Your task to perform on an android device: Show the shopping cart on walmart. Search for asus zenbook on walmart, select the first entry, add it to the cart, then select checkout. Image 0: 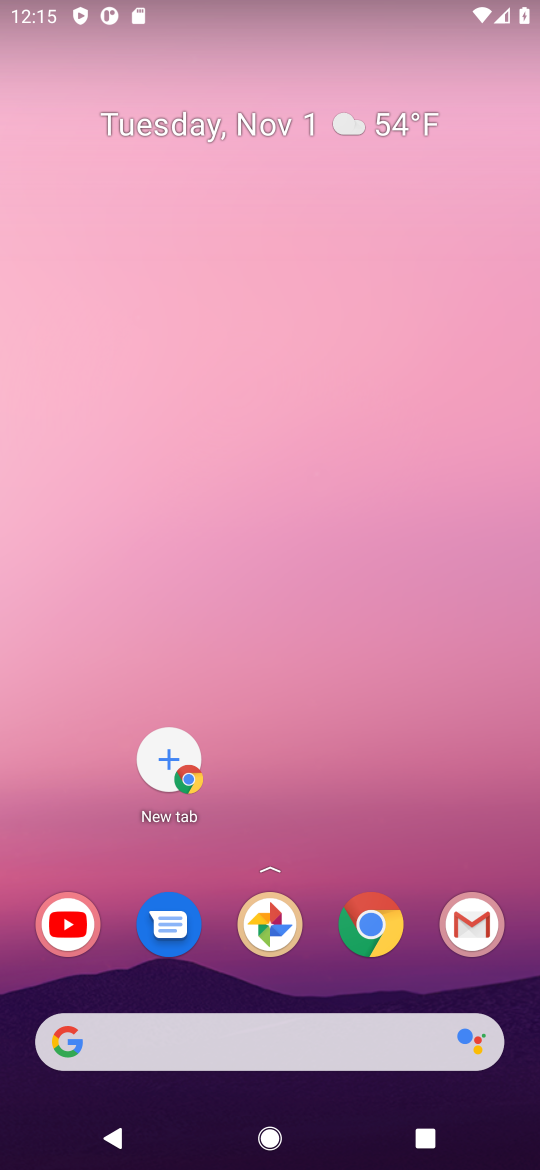
Step 0: click (364, 931)
Your task to perform on an android device: Show the shopping cart on walmart. Search for asus zenbook on walmart, select the first entry, add it to the cart, then select checkout. Image 1: 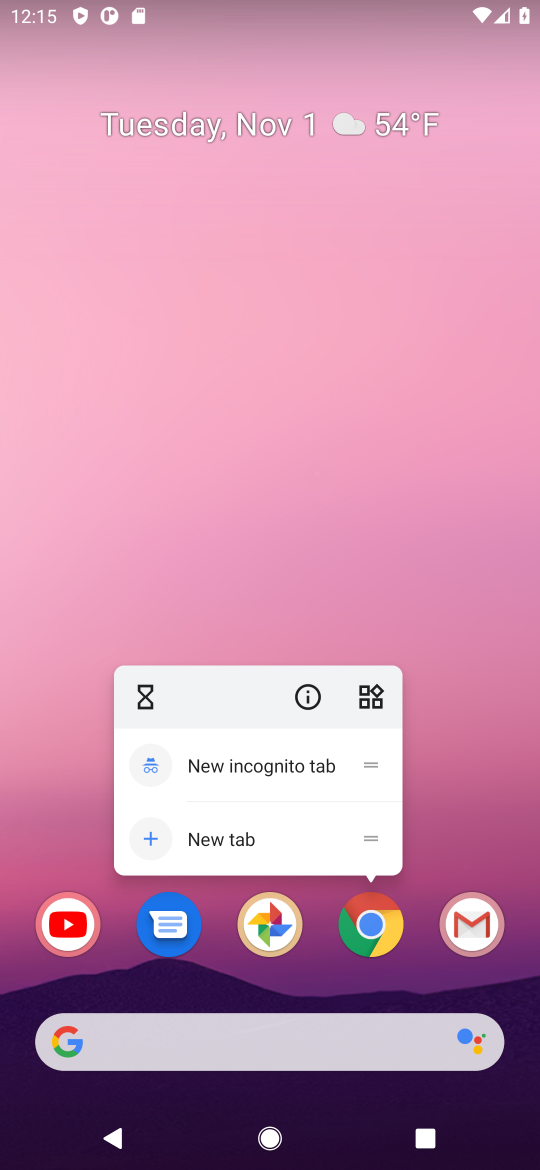
Step 1: click (383, 943)
Your task to perform on an android device: Show the shopping cart on walmart. Search for asus zenbook on walmart, select the first entry, add it to the cart, then select checkout. Image 2: 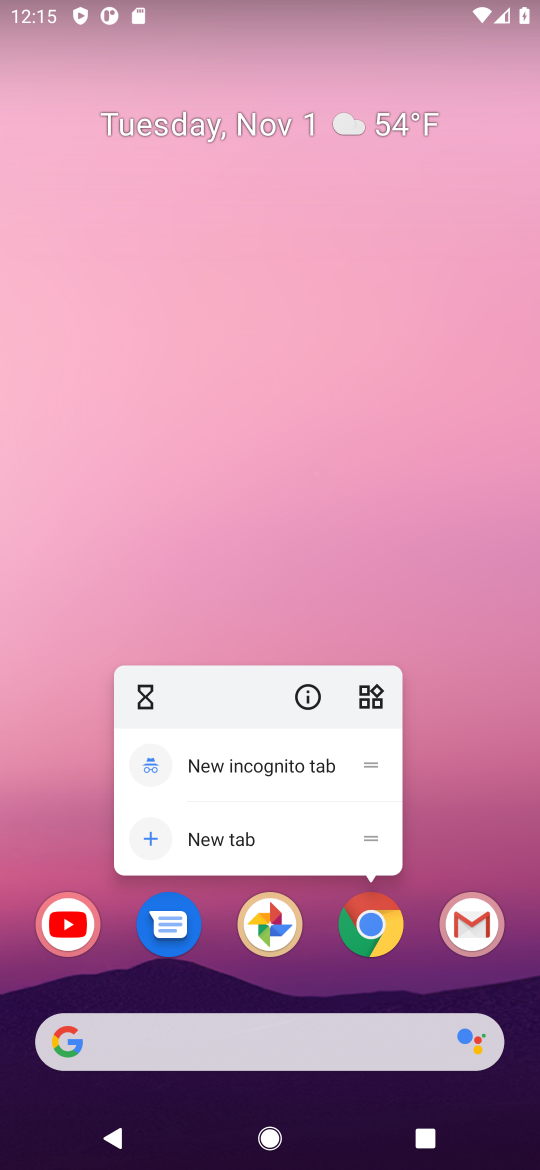
Step 2: click (366, 932)
Your task to perform on an android device: Show the shopping cart on walmart. Search for asus zenbook on walmart, select the first entry, add it to the cart, then select checkout. Image 3: 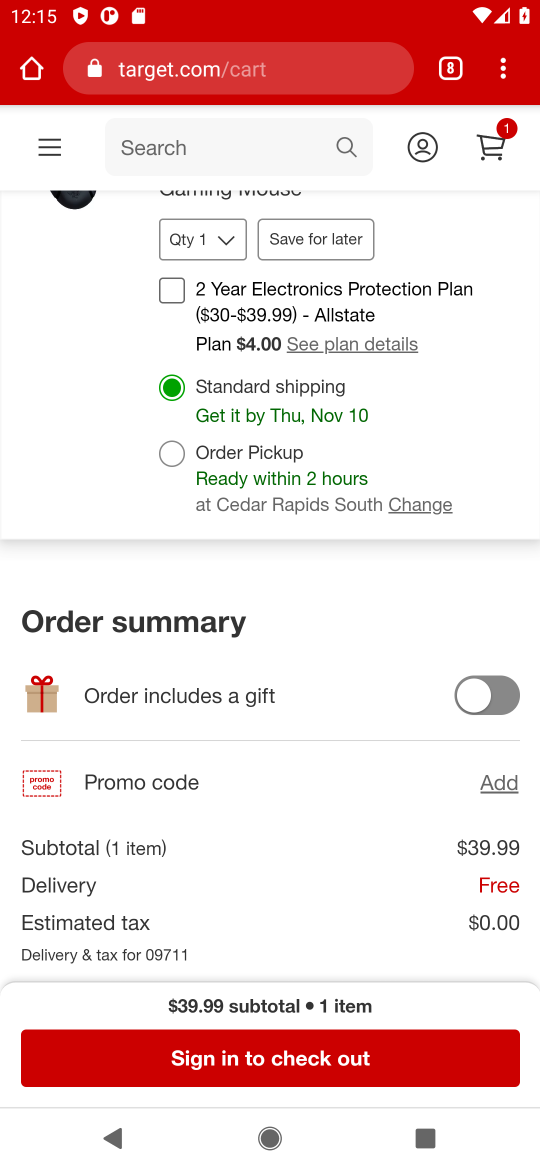
Step 3: click (210, 77)
Your task to perform on an android device: Show the shopping cart on walmart. Search for asus zenbook on walmart, select the first entry, add it to the cart, then select checkout. Image 4: 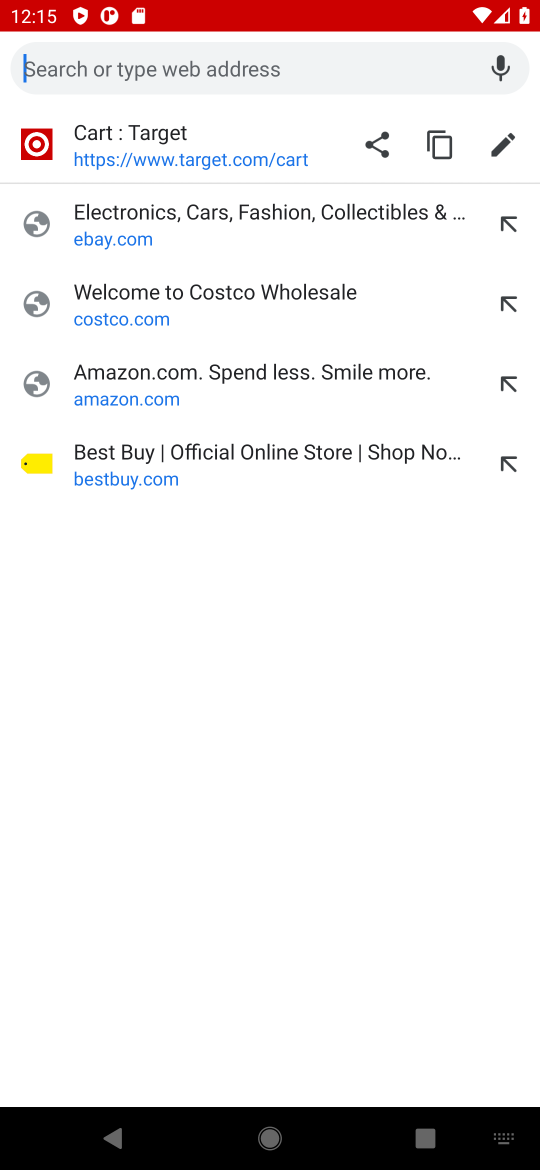
Step 4: type "walmart"
Your task to perform on an android device: Show the shopping cart on walmart. Search for asus zenbook on walmart, select the first entry, add it to the cart, then select checkout. Image 5: 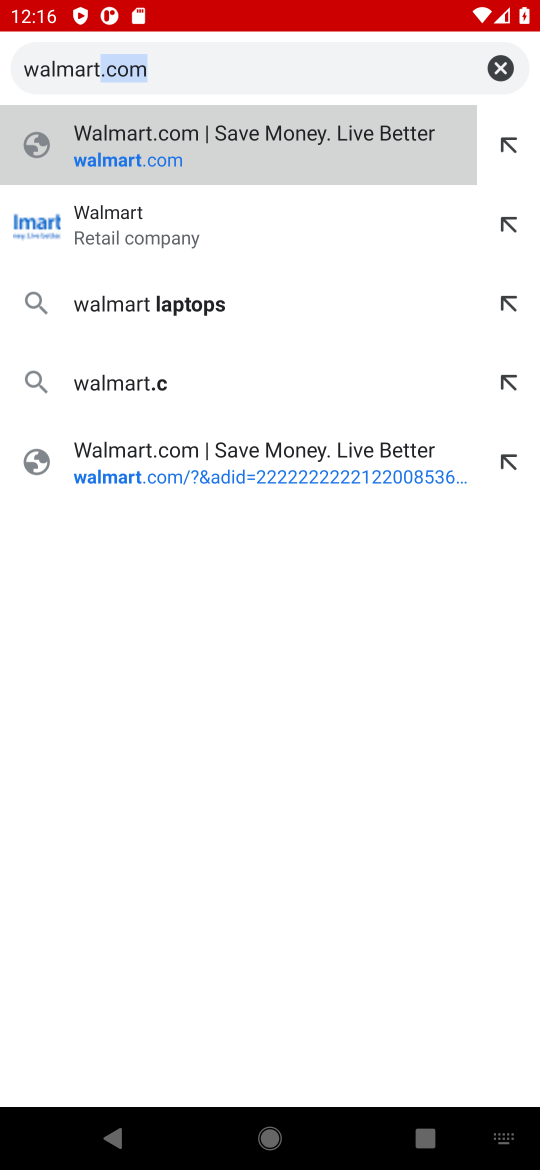
Step 5: click (124, 237)
Your task to perform on an android device: Show the shopping cart on walmart. Search for asus zenbook on walmart, select the first entry, add it to the cart, then select checkout. Image 6: 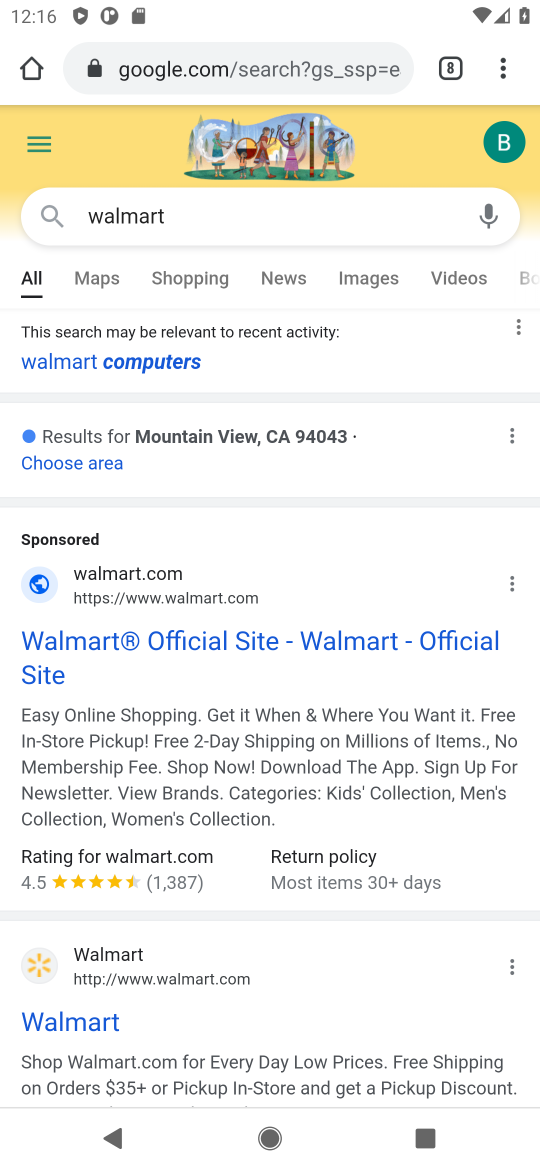
Step 6: click (81, 1022)
Your task to perform on an android device: Show the shopping cart on walmart. Search for asus zenbook on walmart, select the first entry, add it to the cart, then select checkout. Image 7: 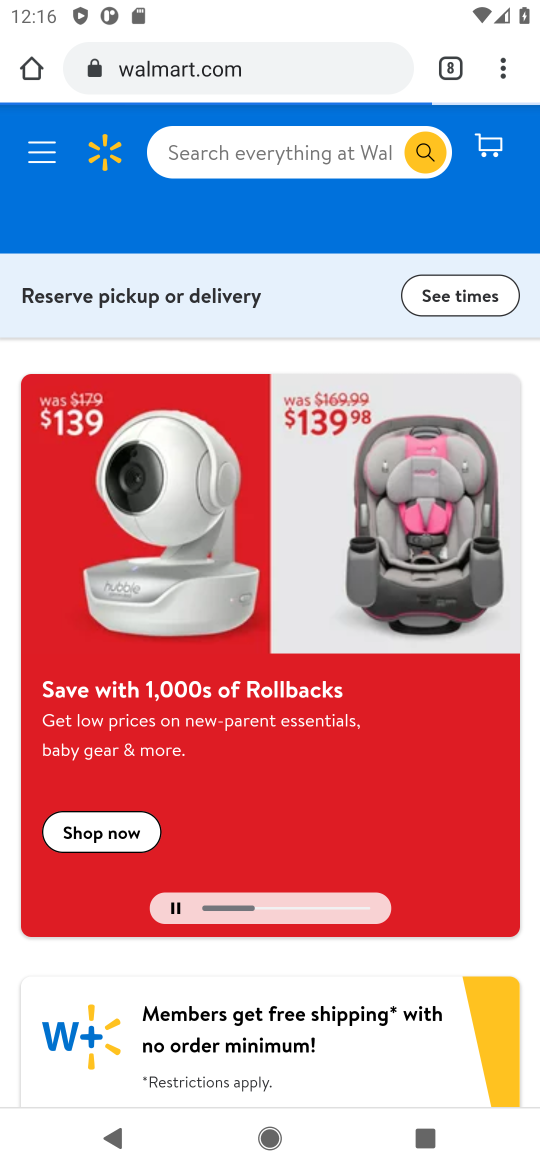
Step 7: click (242, 149)
Your task to perform on an android device: Show the shopping cart on walmart. Search for asus zenbook on walmart, select the first entry, add it to the cart, then select checkout. Image 8: 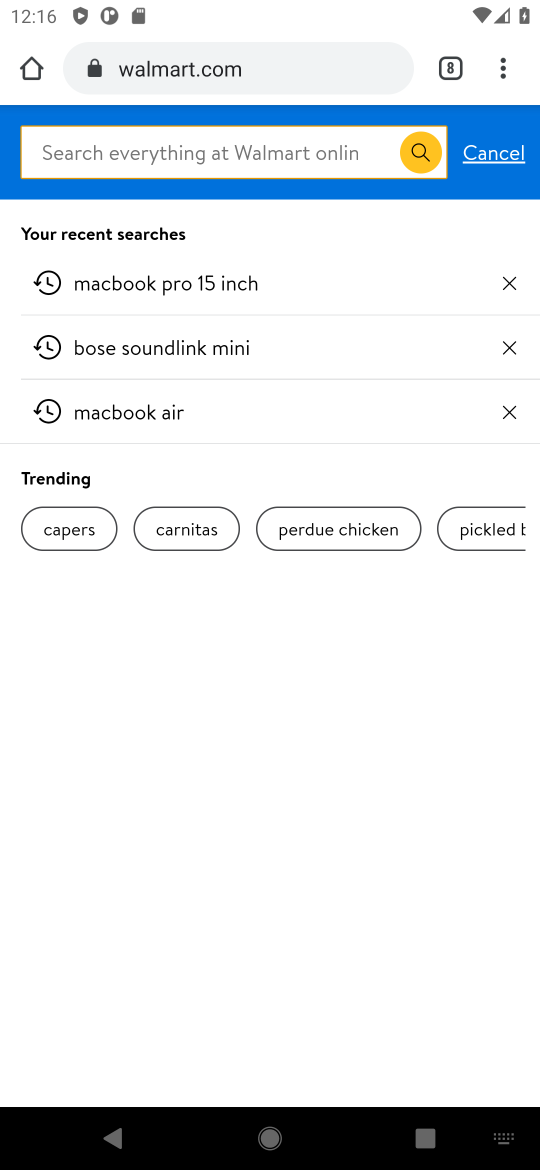
Step 8: type "asus zenbook "
Your task to perform on an android device: Show the shopping cart on walmart. Search for asus zenbook on walmart, select the first entry, add it to the cart, then select checkout. Image 9: 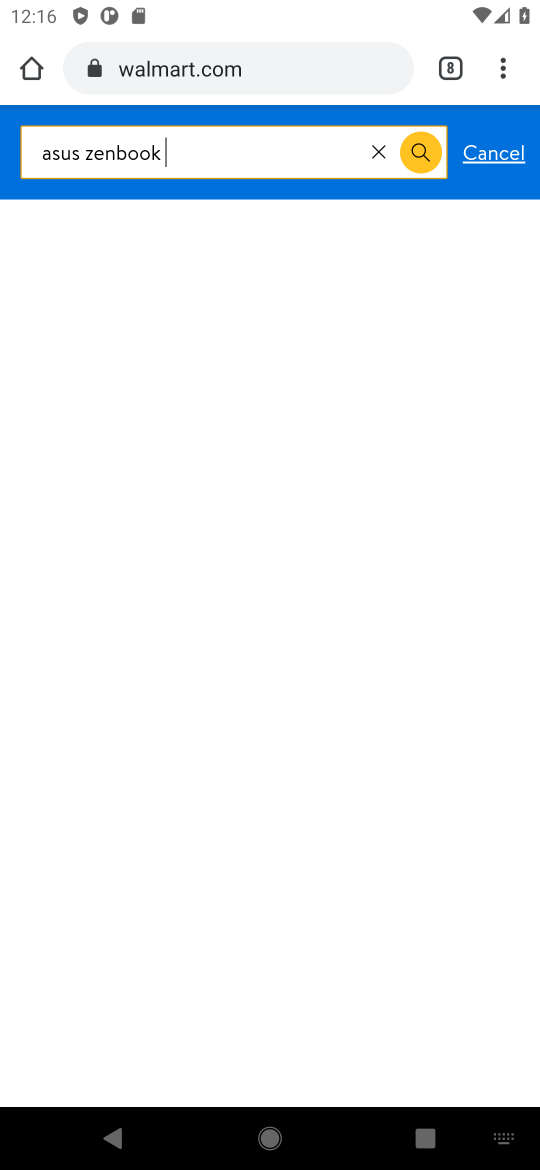
Step 9: type ""
Your task to perform on an android device: Show the shopping cart on walmart. Search for asus zenbook on walmart, select the first entry, add it to the cart, then select checkout. Image 10: 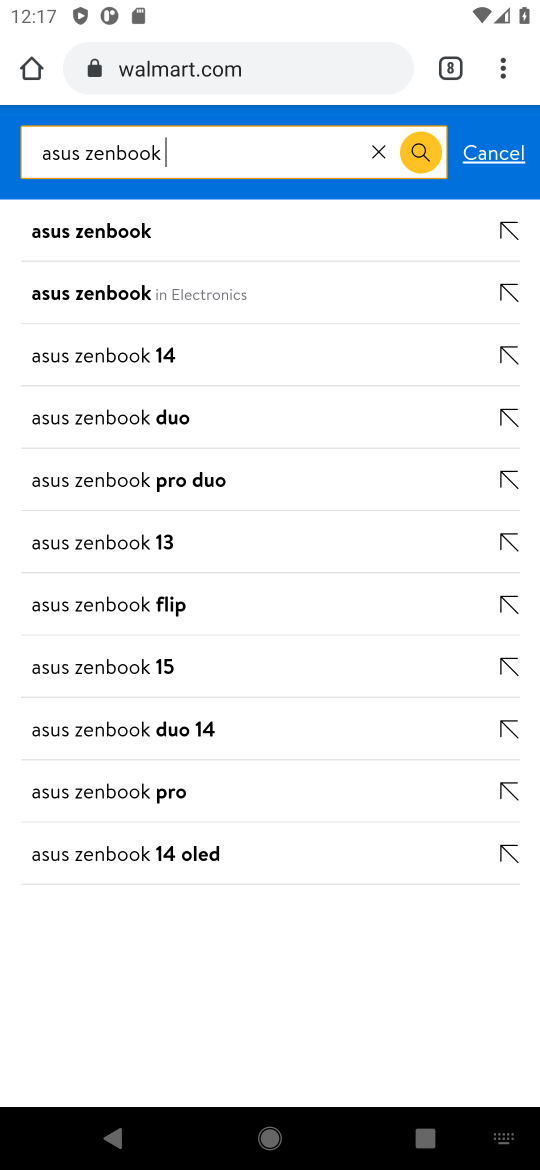
Step 10: click (101, 231)
Your task to perform on an android device: Show the shopping cart on walmart. Search for asus zenbook on walmart, select the first entry, add it to the cart, then select checkout. Image 11: 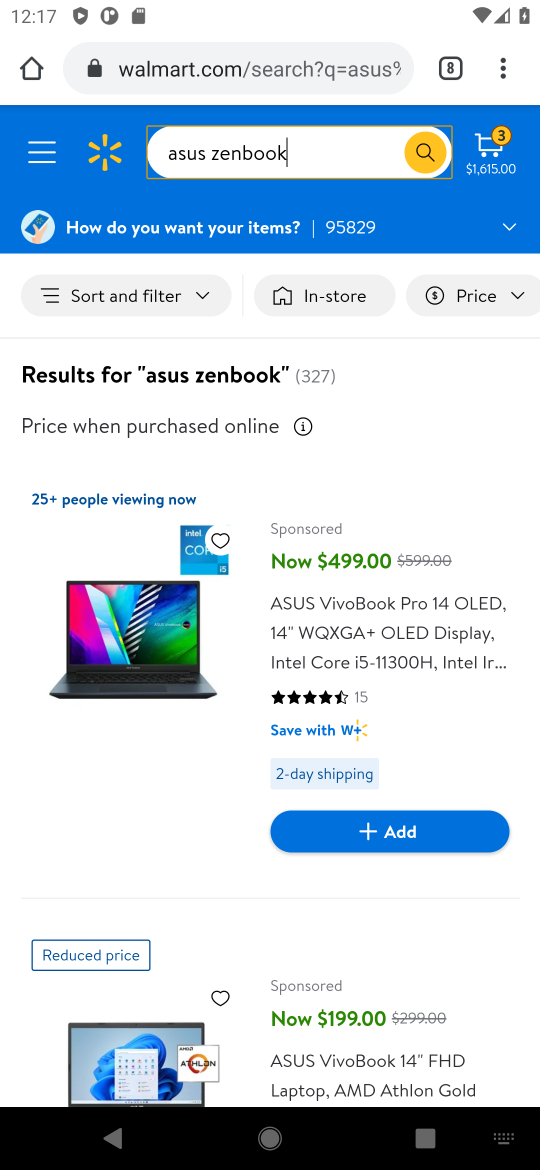
Step 11: drag from (241, 725) to (301, 306)
Your task to perform on an android device: Show the shopping cart on walmart. Search for asus zenbook on walmart, select the first entry, add it to the cart, then select checkout. Image 12: 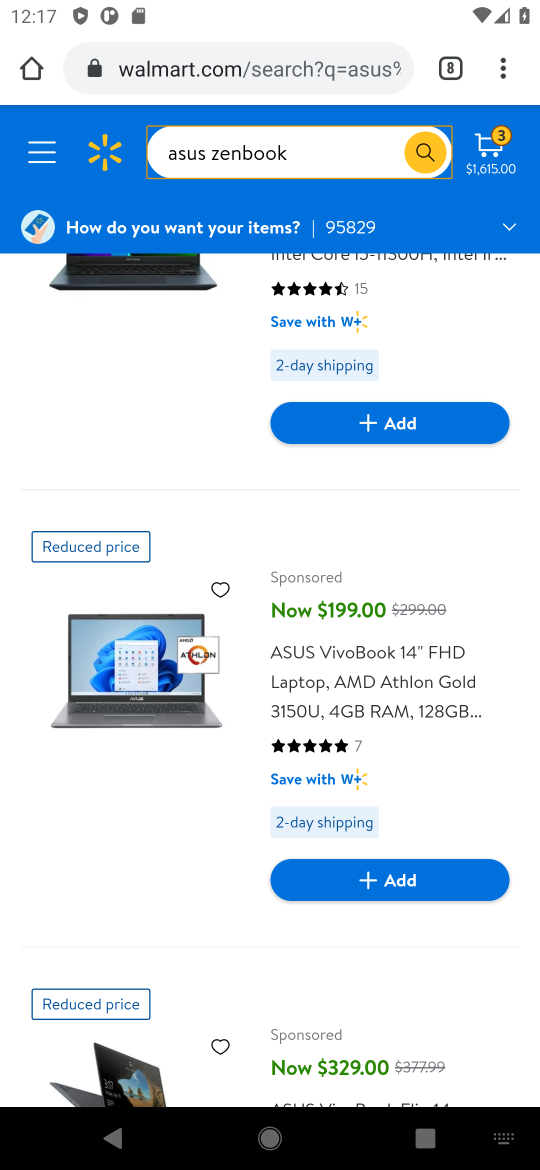
Step 12: drag from (132, 367) to (135, 713)
Your task to perform on an android device: Show the shopping cart on walmart. Search for asus zenbook on walmart, select the first entry, add it to the cart, then select checkout. Image 13: 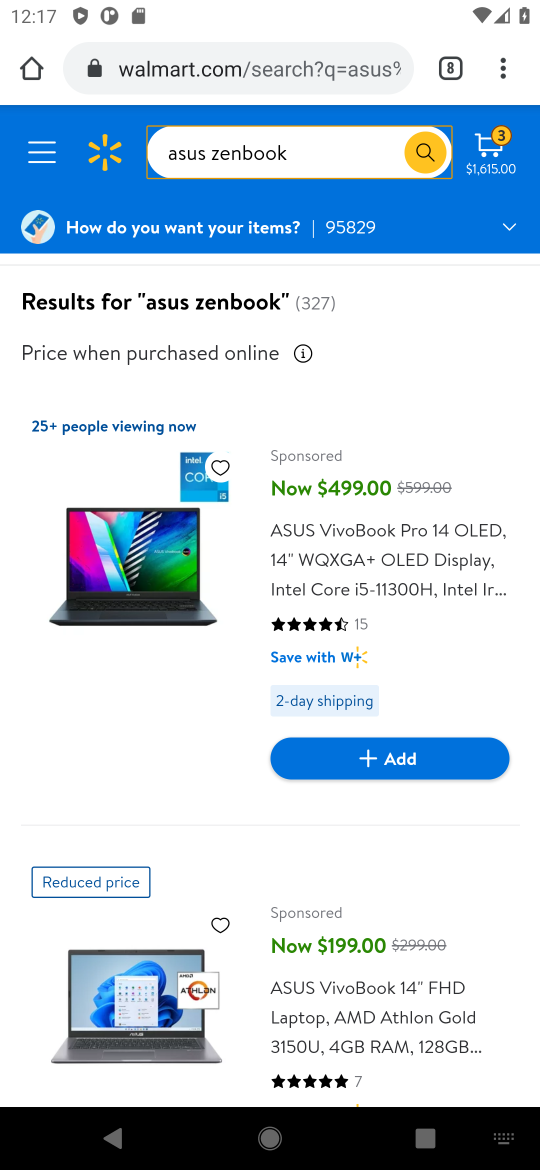
Step 13: drag from (160, 821) to (149, 535)
Your task to perform on an android device: Show the shopping cart on walmart. Search for asus zenbook on walmart, select the first entry, add it to the cart, then select checkout. Image 14: 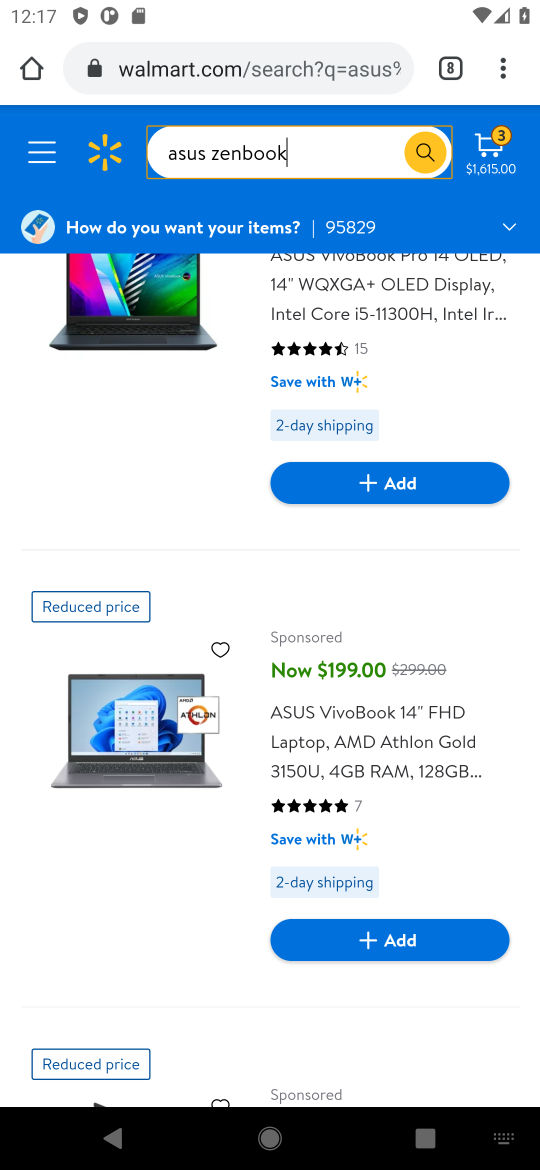
Step 14: drag from (118, 875) to (202, 421)
Your task to perform on an android device: Show the shopping cart on walmart. Search for asus zenbook on walmart, select the first entry, add it to the cart, then select checkout. Image 15: 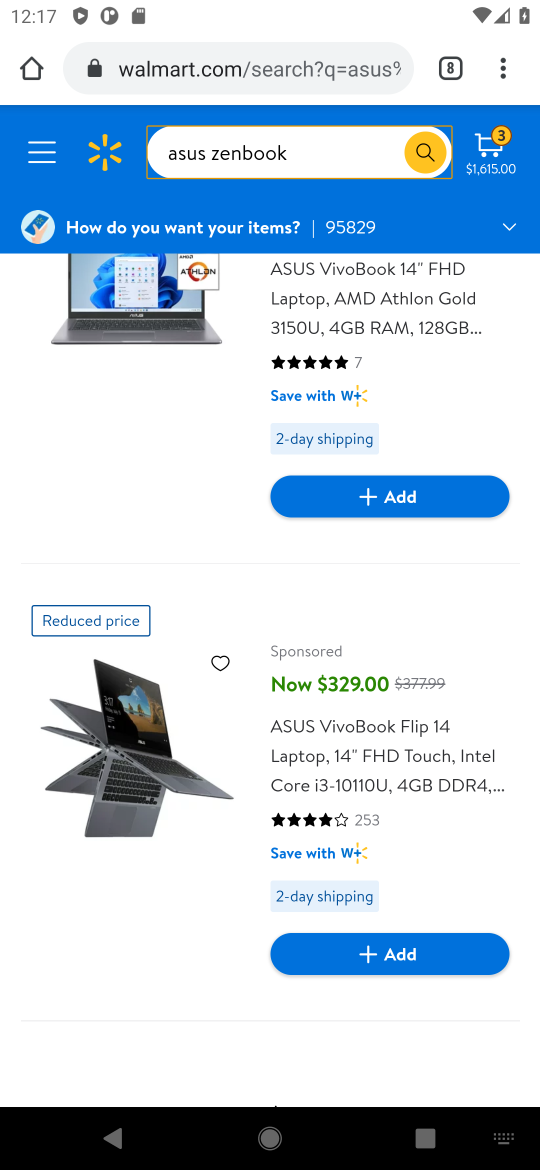
Step 15: drag from (161, 815) to (214, 498)
Your task to perform on an android device: Show the shopping cart on walmart. Search for asus zenbook on walmart, select the first entry, add it to the cart, then select checkout. Image 16: 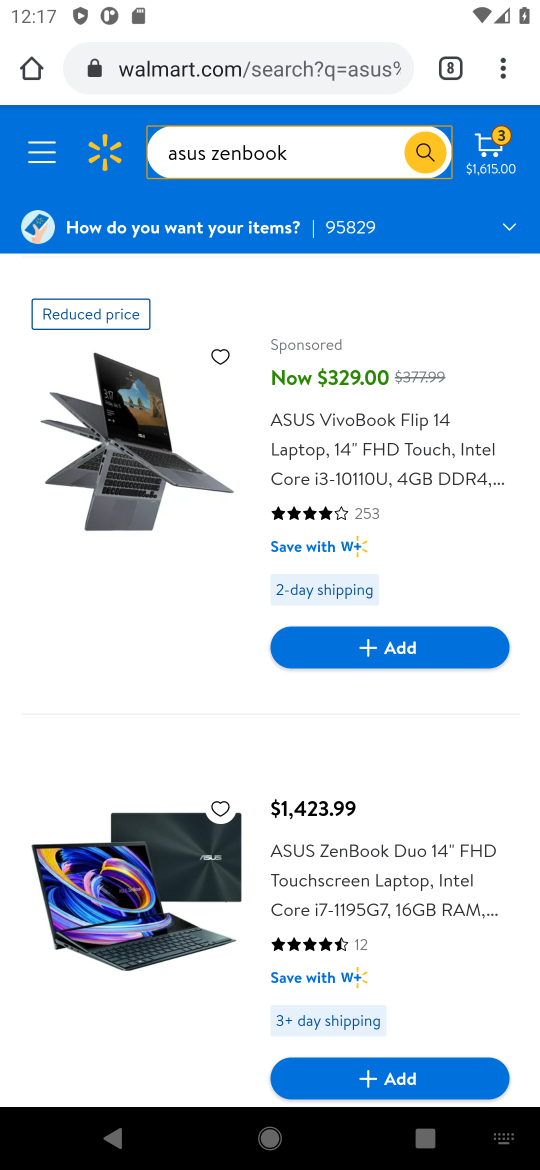
Step 16: click (381, 857)
Your task to perform on an android device: Show the shopping cart on walmart. Search for asus zenbook on walmart, select the first entry, add it to the cart, then select checkout. Image 17: 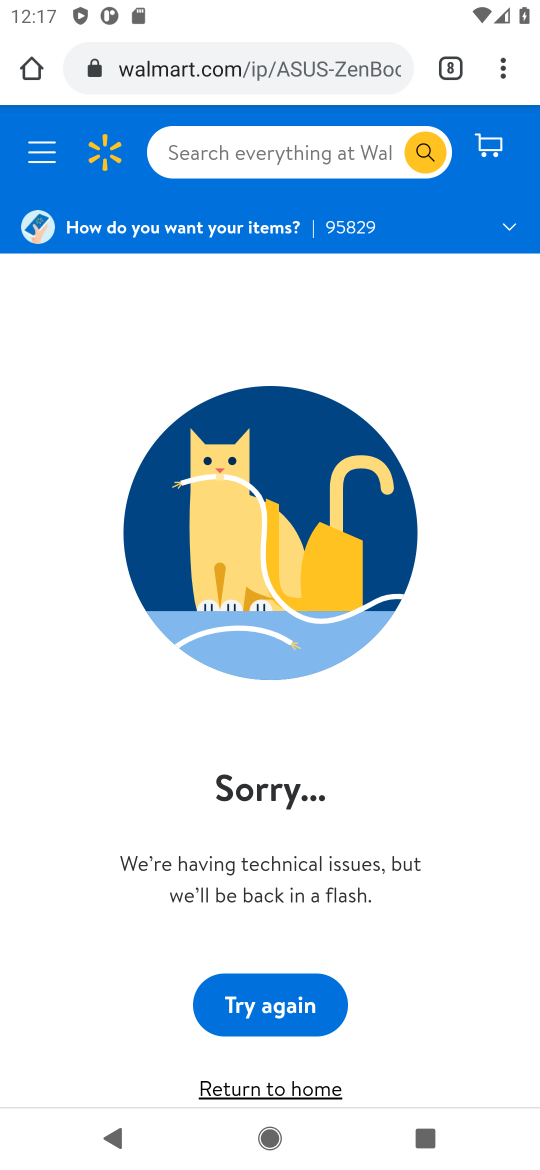
Step 17: click (277, 1018)
Your task to perform on an android device: Show the shopping cart on walmart. Search for asus zenbook on walmart, select the first entry, add it to the cart, then select checkout. Image 18: 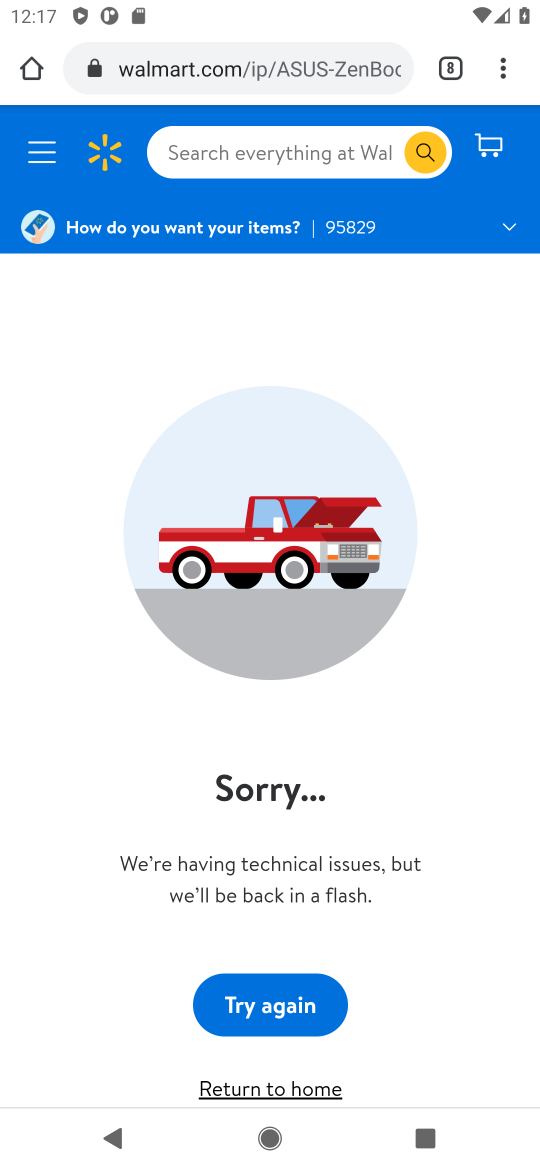
Step 18: press back button
Your task to perform on an android device: Show the shopping cart on walmart. Search for asus zenbook on walmart, select the first entry, add it to the cart, then select checkout. Image 19: 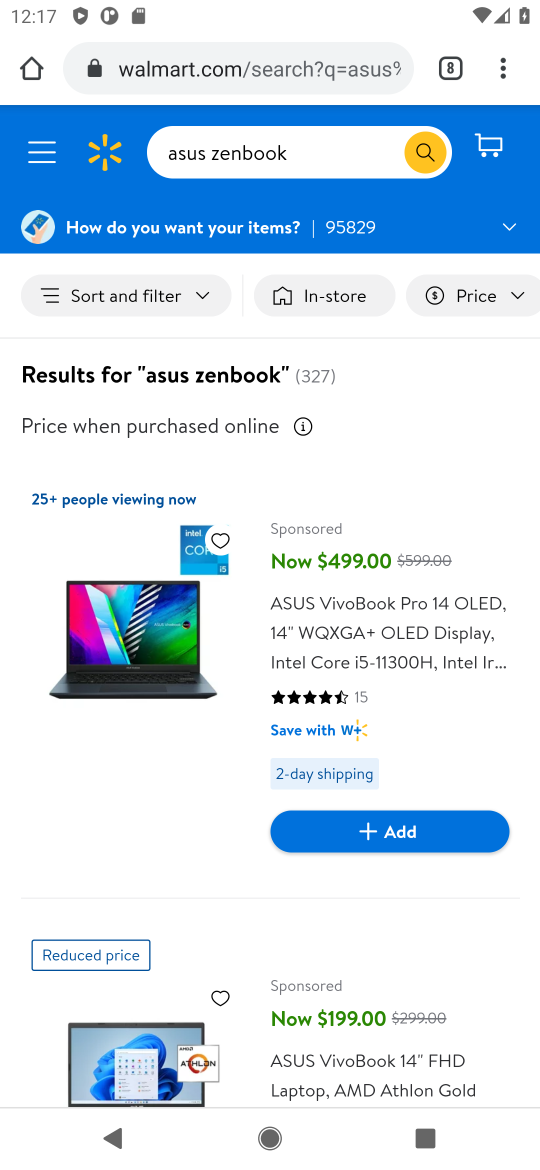
Step 19: drag from (203, 779) to (247, 505)
Your task to perform on an android device: Show the shopping cart on walmart. Search for asus zenbook on walmart, select the first entry, add it to the cart, then select checkout. Image 20: 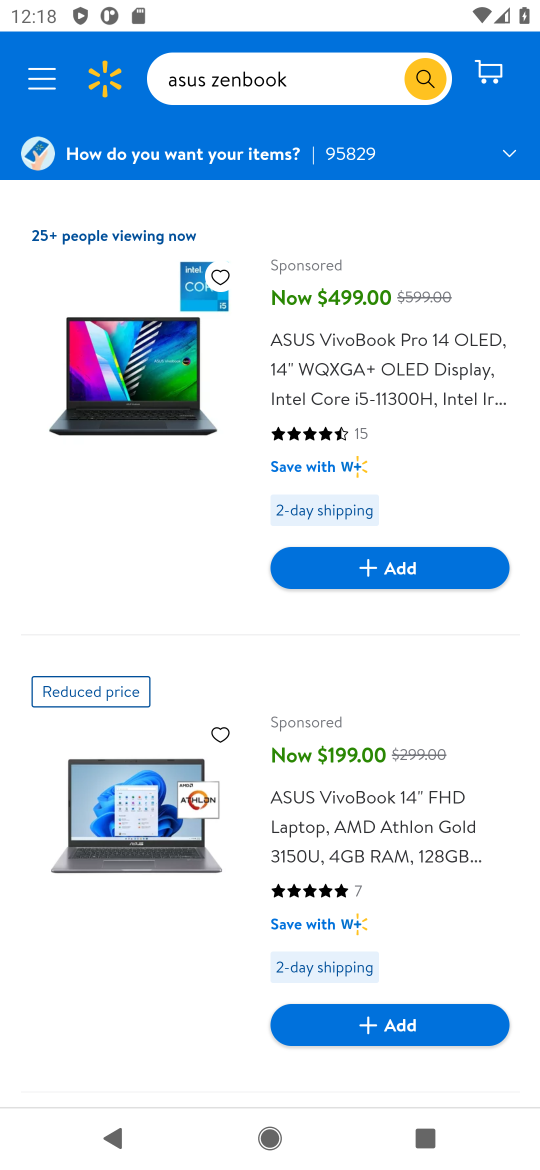
Step 20: drag from (135, 975) to (307, 330)
Your task to perform on an android device: Show the shopping cart on walmart. Search for asus zenbook on walmart, select the first entry, add it to the cart, then select checkout. Image 21: 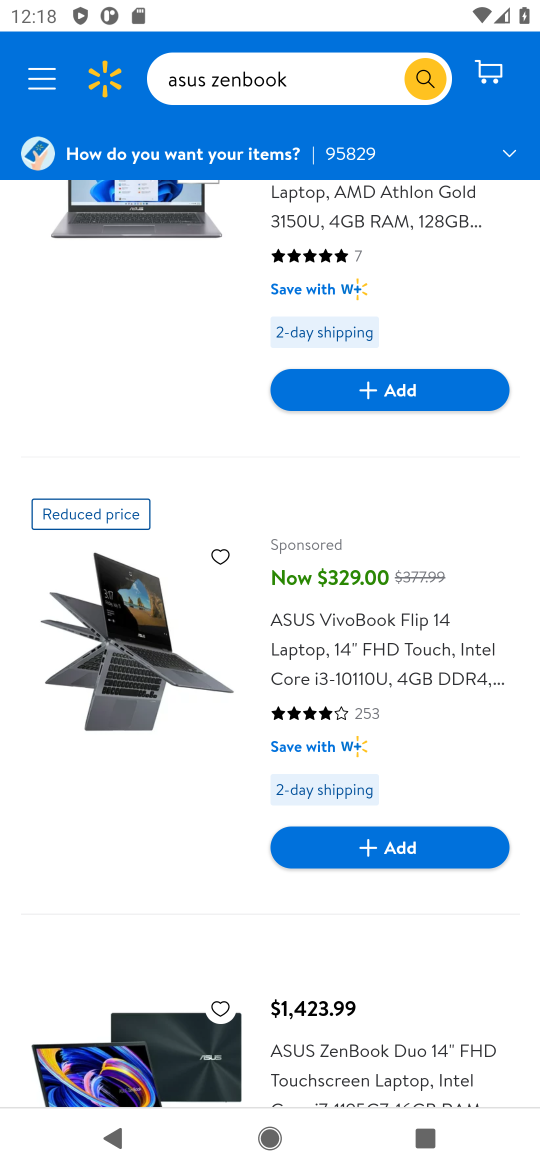
Step 21: click (172, 1049)
Your task to perform on an android device: Show the shopping cart on walmart. Search for asus zenbook on walmart, select the first entry, add it to the cart, then select checkout. Image 22: 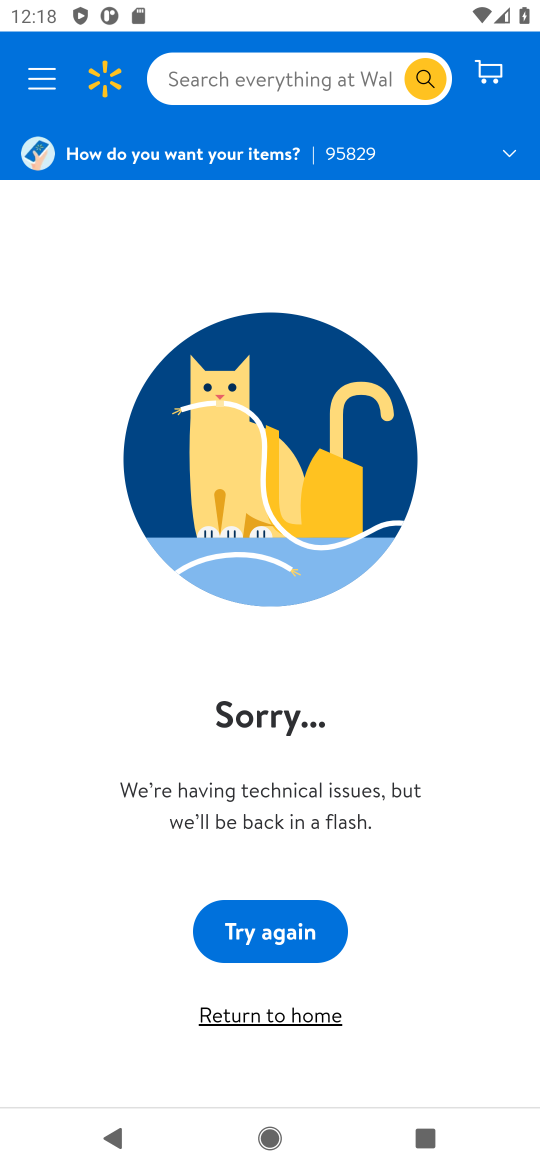
Step 22: task complete